Your task to perform on an android device: Search for seafood restaurants on Google Maps Image 0: 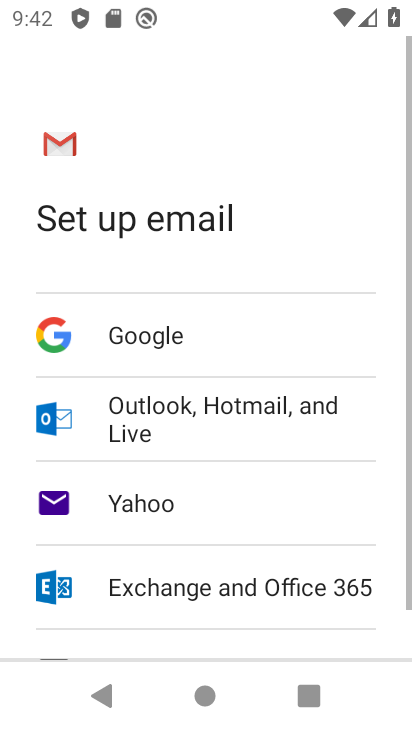
Step 0: press back button
Your task to perform on an android device: Search for seafood restaurants on Google Maps Image 1: 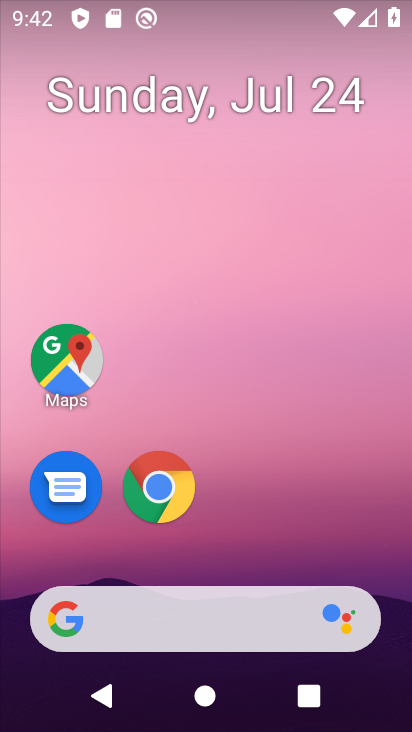
Step 1: click (64, 354)
Your task to perform on an android device: Search for seafood restaurants on Google Maps Image 2: 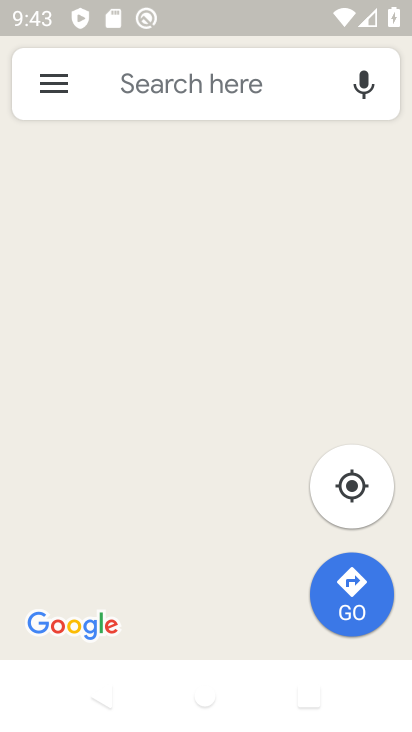
Step 2: click (207, 86)
Your task to perform on an android device: Search for seafood restaurants on Google Maps Image 3: 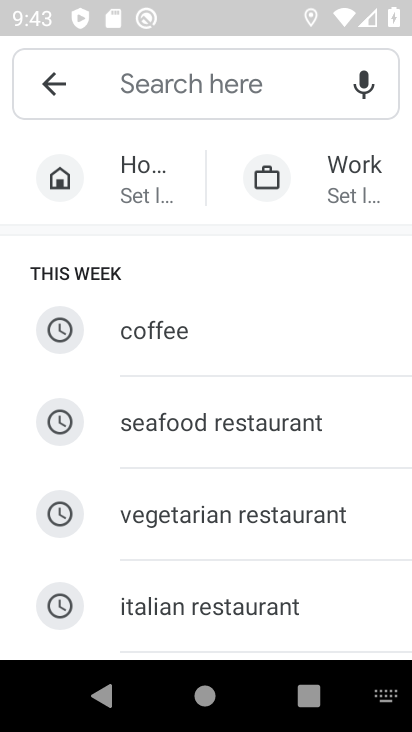
Step 3: type "seafood rest"
Your task to perform on an android device: Search for seafood restaurants on Google Maps Image 4: 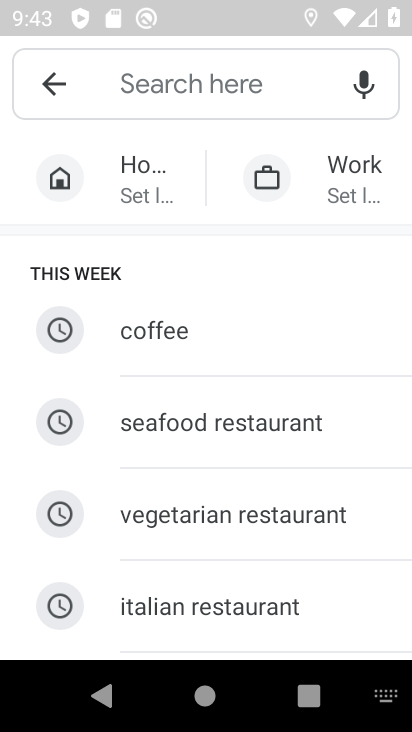
Step 4: click (221, 418)
Your task to perform on an android device: Search for seafood restaurants on Google Maps Image 5: 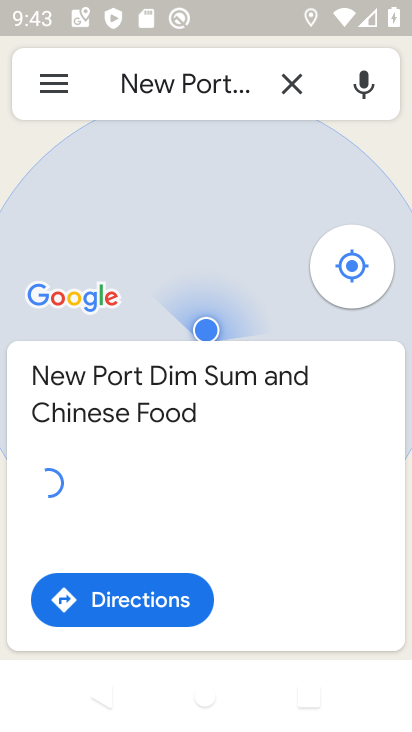
Step 5: click (303, 84)
Your task to perform on an android device: Search for seafood restaurants on Google Maps Image 6: 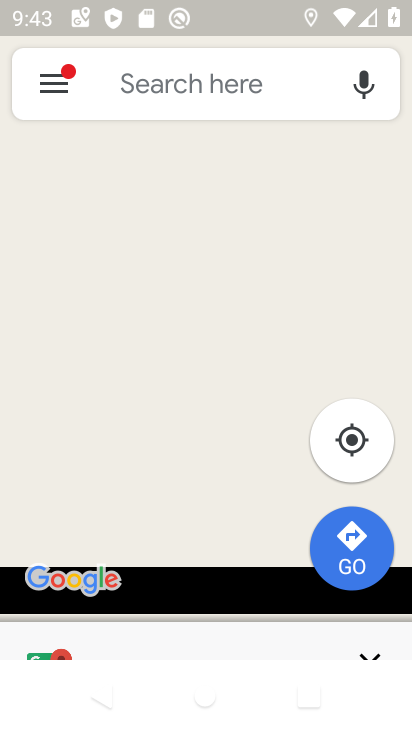
Step 6: click (185, 89)
Your task to perform on an android device: Search for seafood restaurants on Google Maps Image 7: 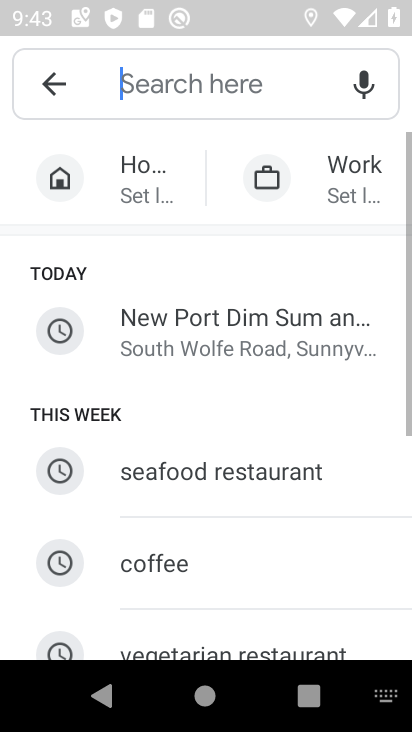
Step 7: click (151, 486)
Your task to perform on an android device: Search for seafood restaurants on Google Maps Image 8: 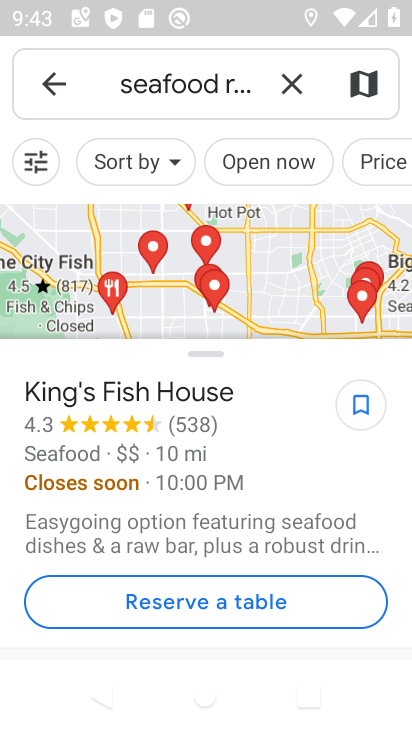
Step 8: task complete